Your task to perform on an android device: Nike Air Max 2020 shoes on Nike.com Image 0: 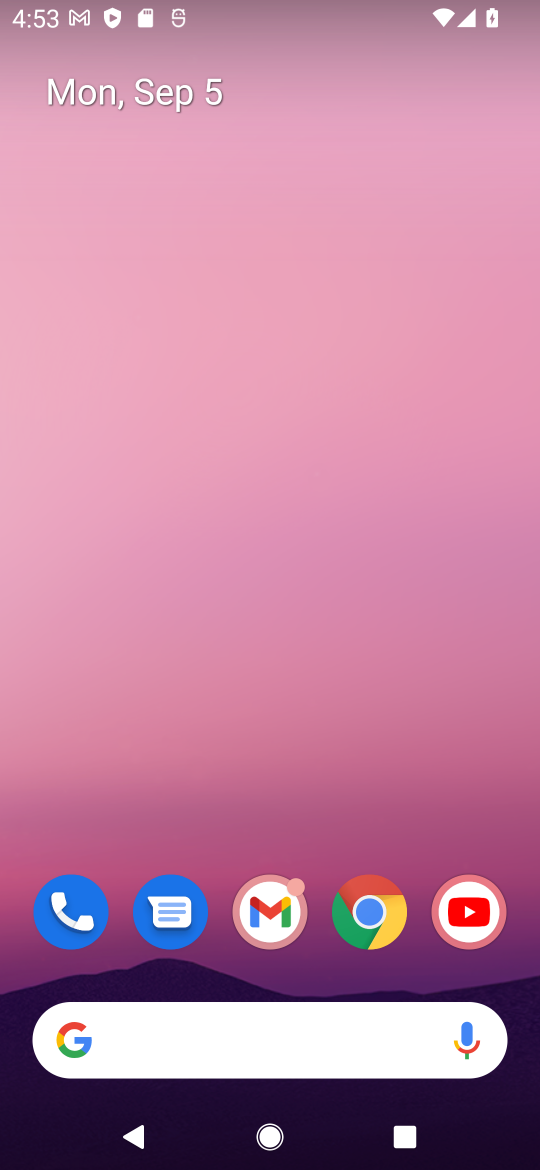
Step 0: click (375, 929)
Your task to perform on an android device: Nike Air Max 2020 shoes on Nike.com Image 1: 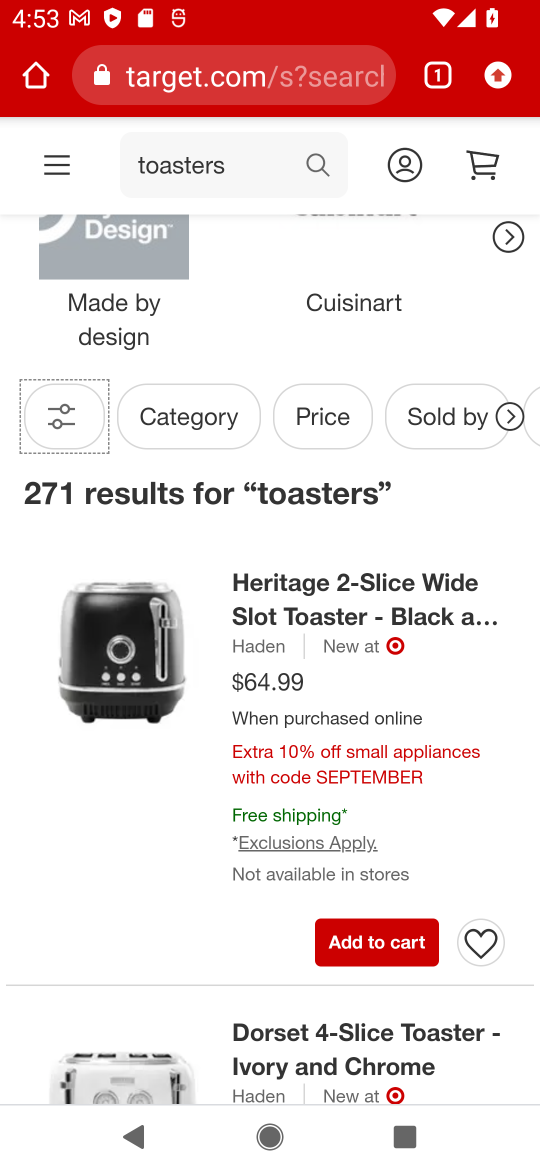
Step 1: click (227, 76)
Your task to perform on an android device: Nike Air Max 2020 shoes on Nike.com Image 2: 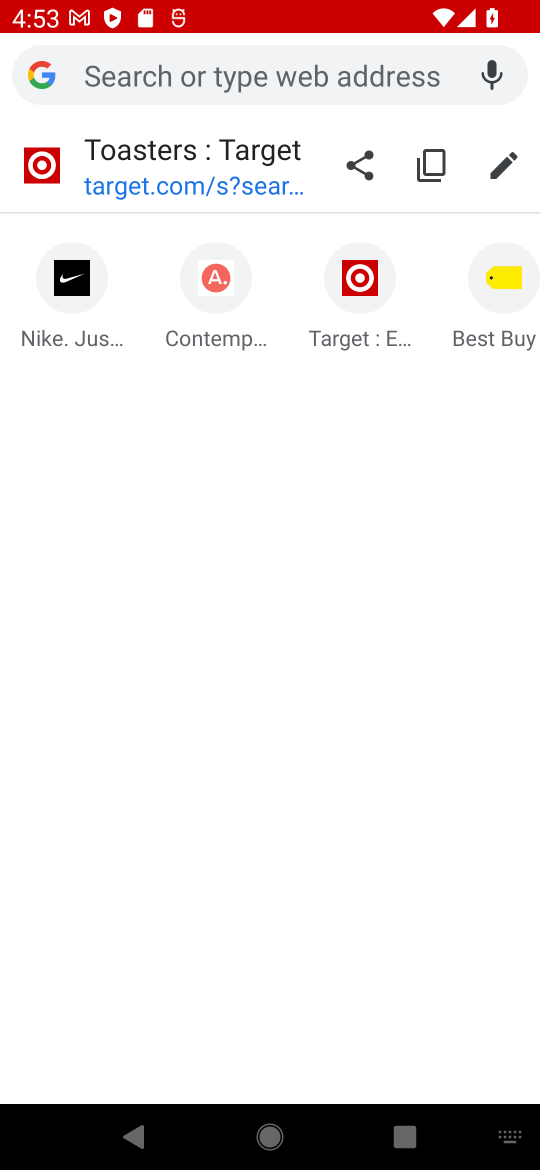
Step 2: type "nike.com"
Your task to perform on an android device: Nike Air Max 2020 shoes on Nike.com Image 3: 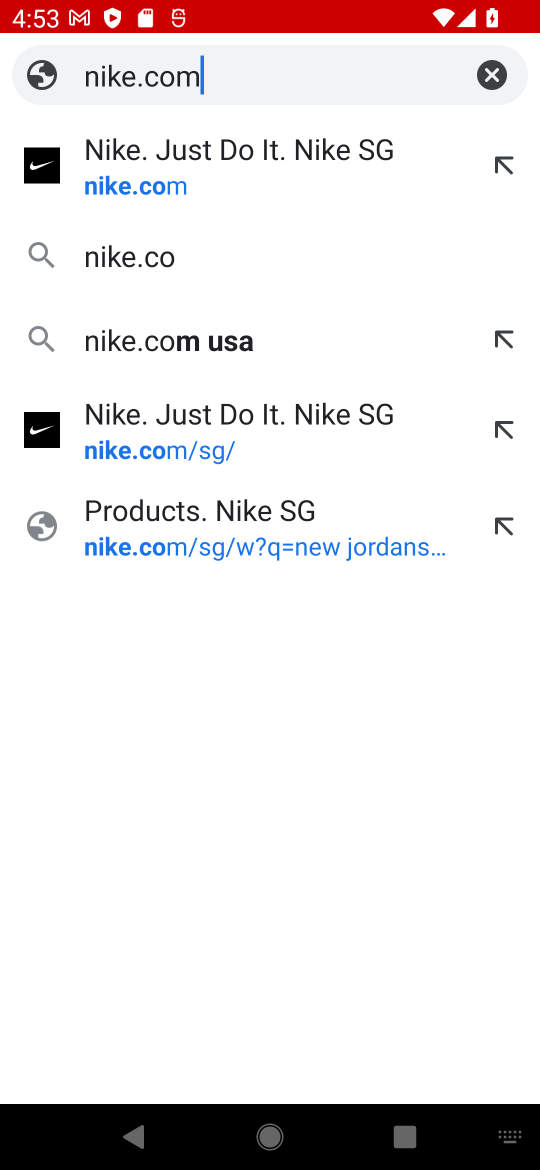
Step 3: type ""
Your task to perform on an android device: Nike Air Max 2020 shoes on Nike.com Image 4: 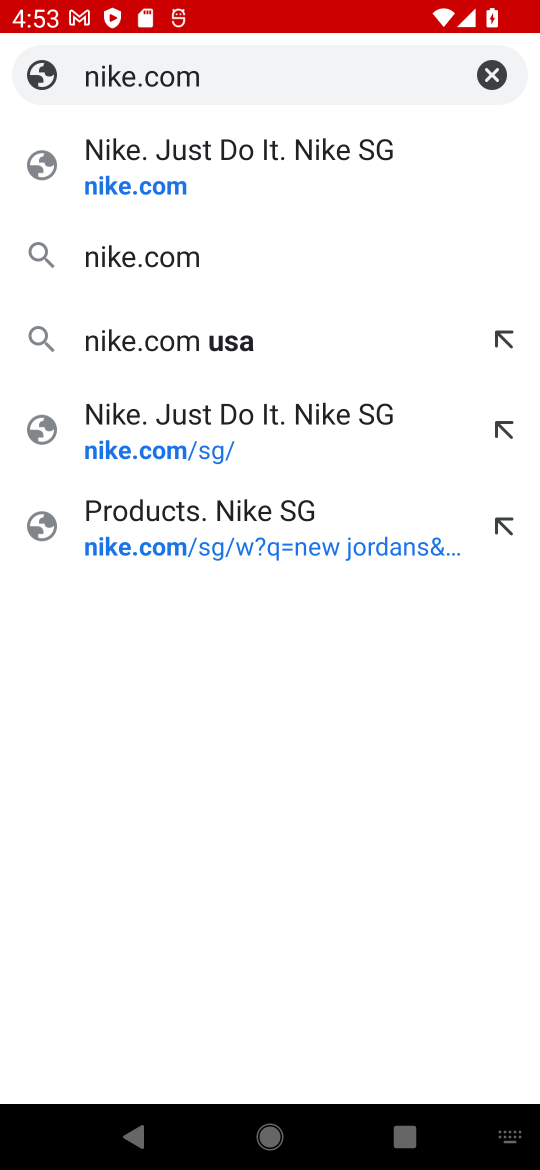
Step 4: click (281, 191)
Your task to perform on an android device: Nike Air Max 2020 shoes on Nike.com Image 5: 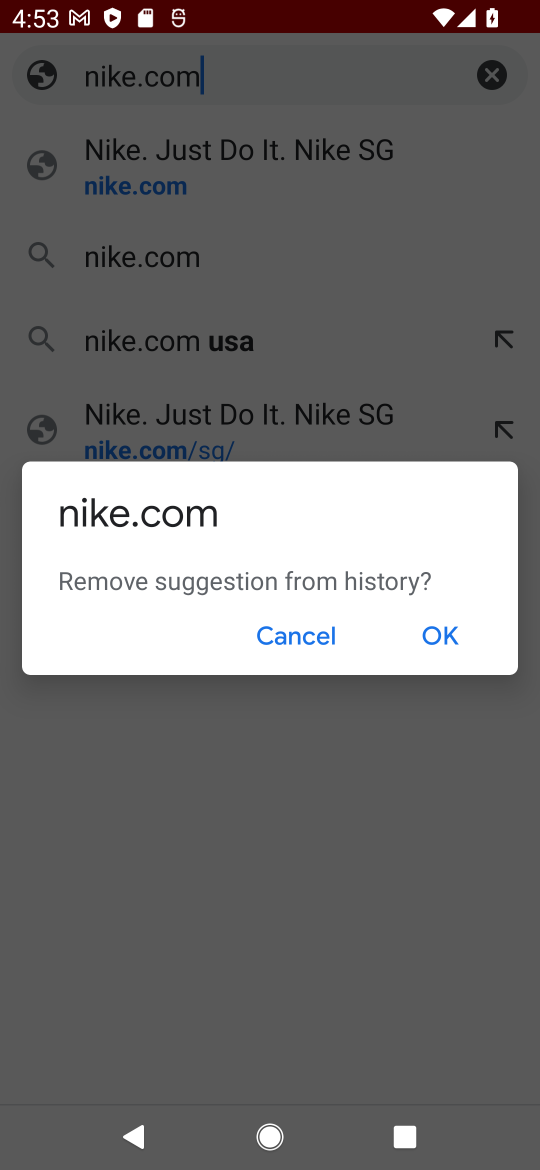
Step 5: click (290, 637)
Your task to perform on an android device: Nike Air Max 2020 shoes on Nike.com Image 6: 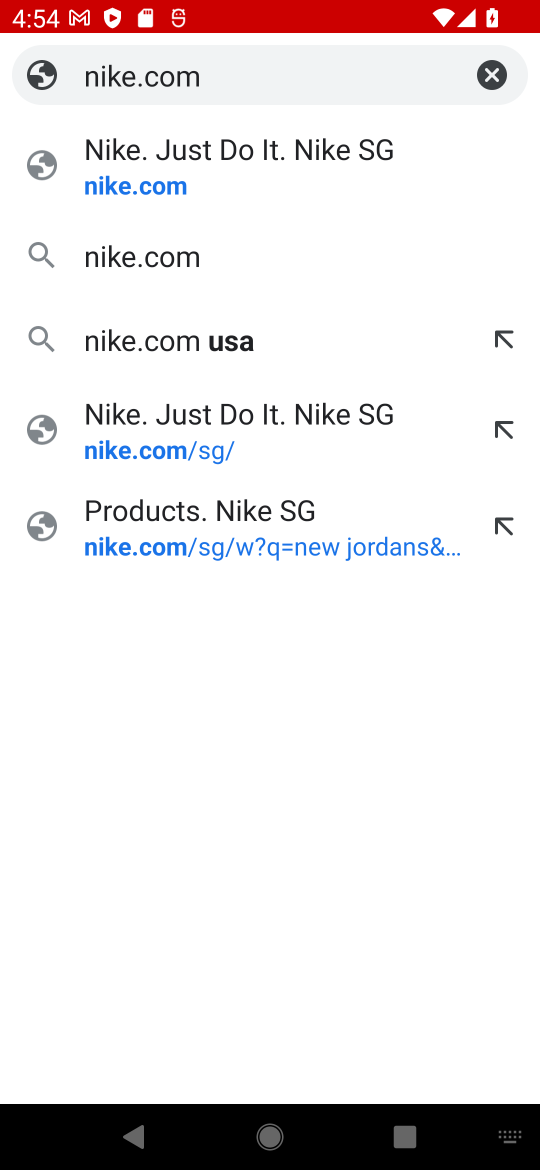
Step 6: press enter
Your task to perform on an android device: Nike Air Max 2020 shoes on Nike.com Image 7: 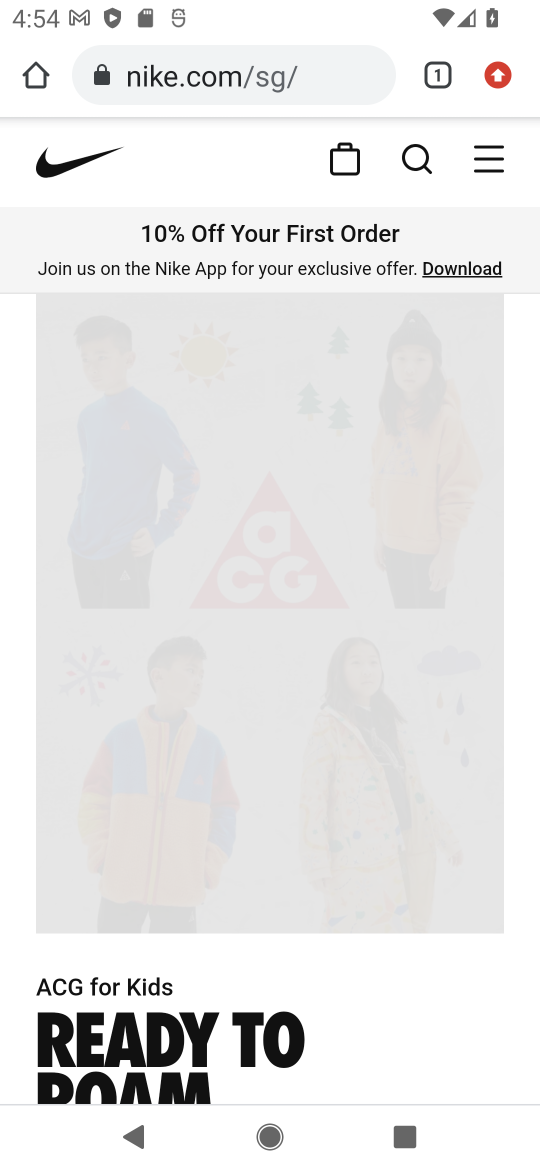
Step 7: click (402, 168)
Your task to perform on an android device: Nike Air Max 2020 shoes on Nike.com Image 8: 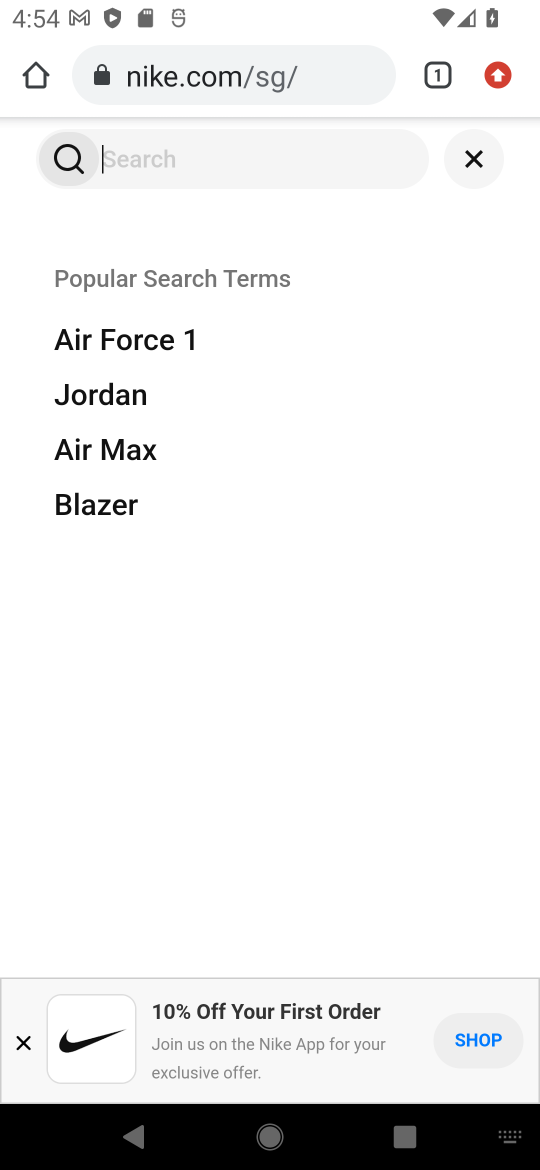
Step 8: type "nike air max 2020 shoes"
Your task to perform on an android device: Nike Air Max 2020 shoes on Nike.com Image 9: 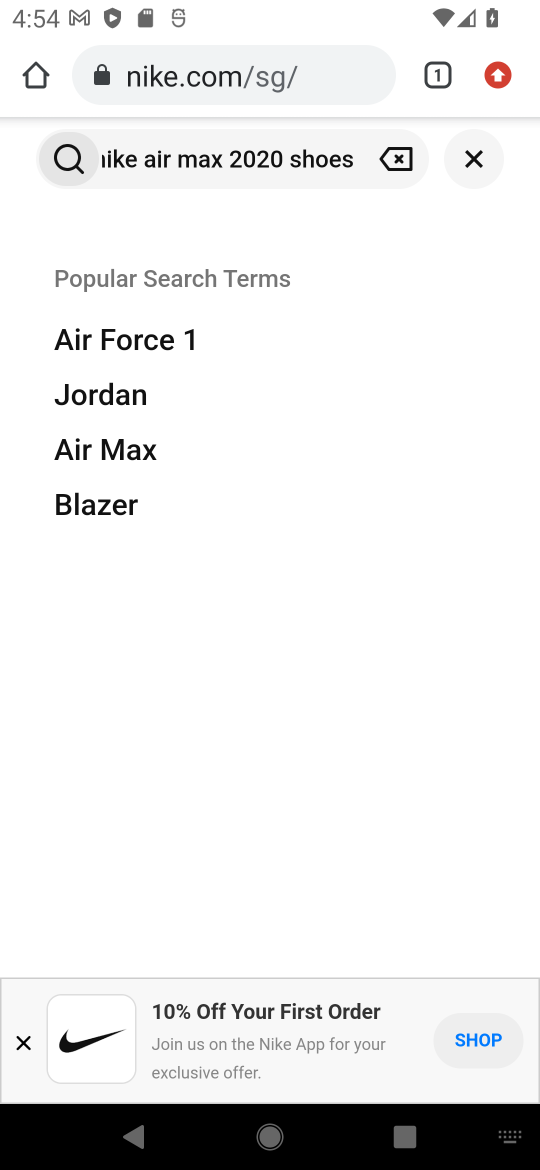
Step 9: type ""
Your task to perform on an android device: Nike Air Max 2020 shoes on Nike.com Image 10: 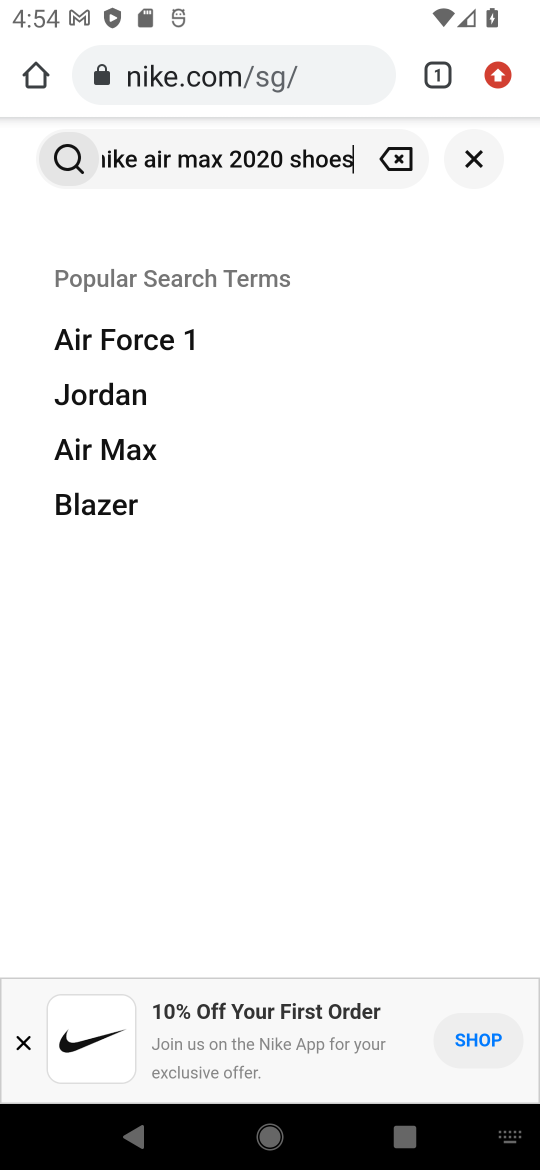
Step 10: press enter
Your task to perform on an android device: Nike Air Max 2020 shoes on Nike.com Image 11: 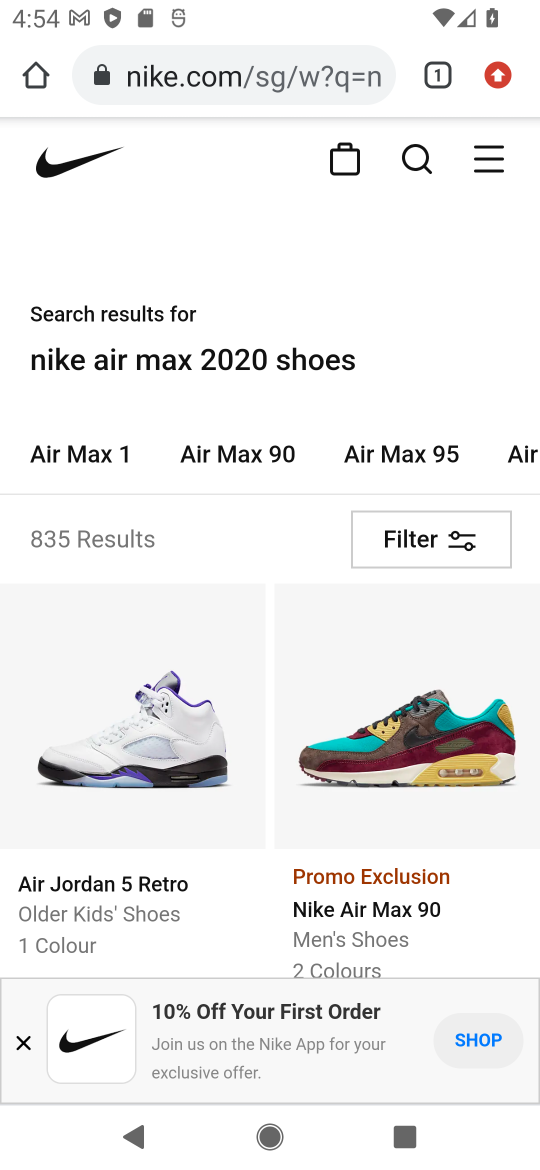
Step 11: drag from (308, 766) to (398, 287)
Your task to perform on an android device: Nike Air Max 2020 shoes on Nike.com Image 12: 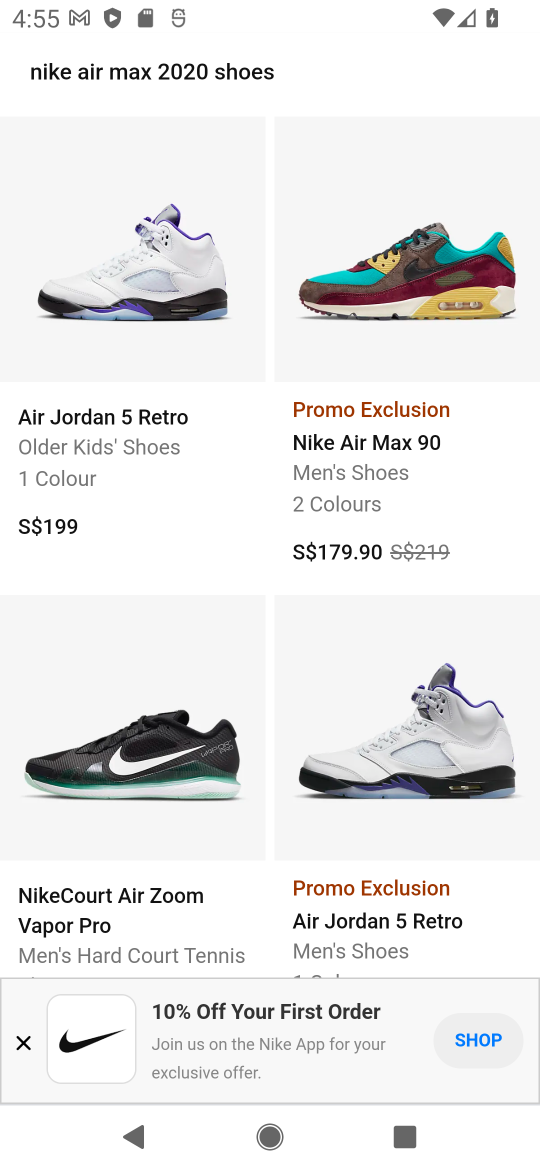
Step 12: drag from (380, 534) to (375, 673)
Your task to perform on an android device: Nike Air Max 2020 shoes on Nike.com Image 13: 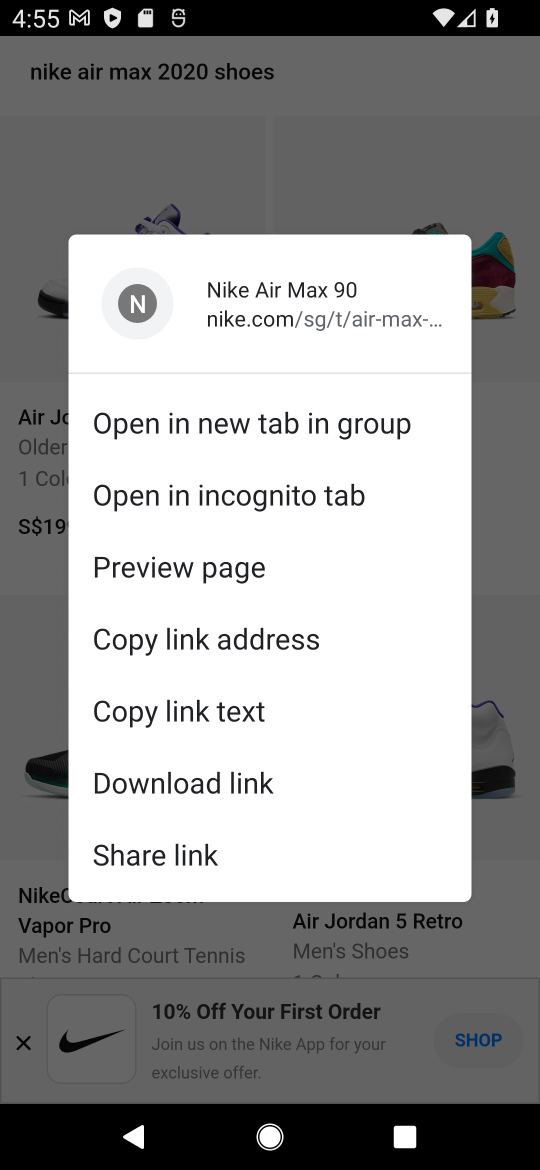
Step 13: click (481, 616)
Your task to perform on an android device: Nike Air Max 2020 shoes on Nike.com Image 14: 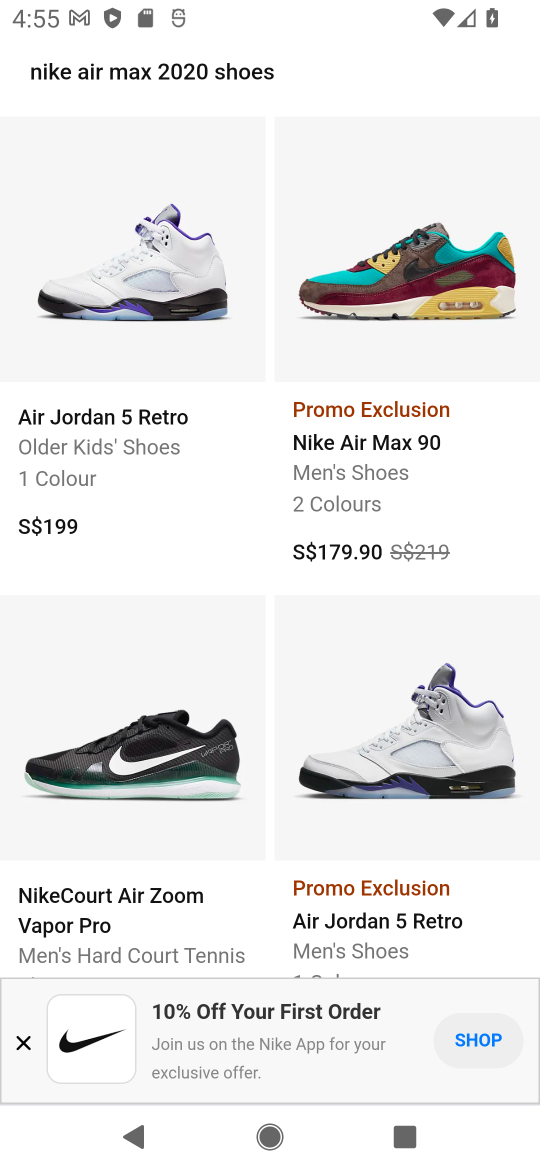
Step 14: task complete